Your task to perform on an android device: Search for pizza restaurants on Maps Image 0: 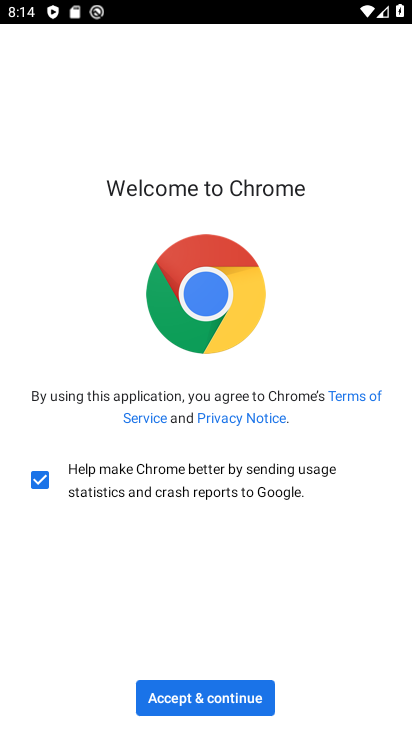
Step 0: click (191, 690)
Your task to perform on an android device: Search for pizza restaurants on Maps Image 1: 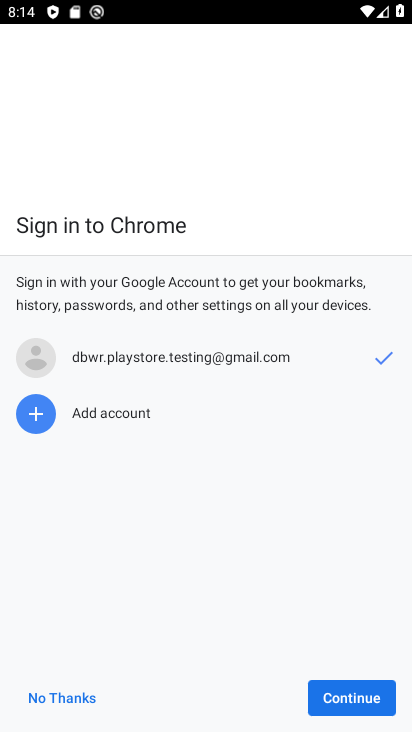
Step 1: click (349, 684)
Your task to perform on an android device: Search for pizza restaurants on Maps Image 2: 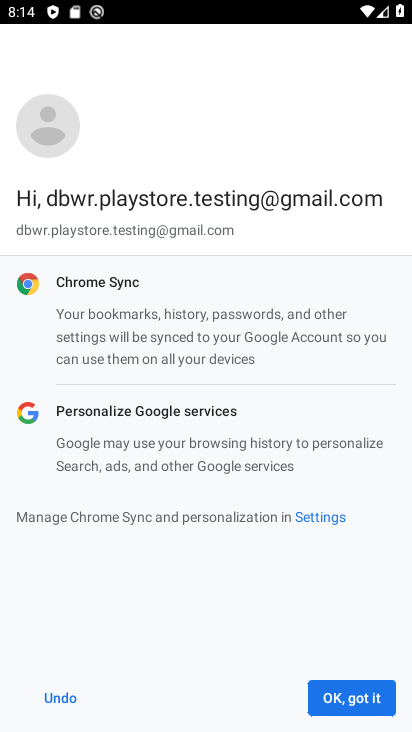
Step 2: click (347, 690)
Your task to perform on an android device: Search for pizza restaurants on Maps Image 3: 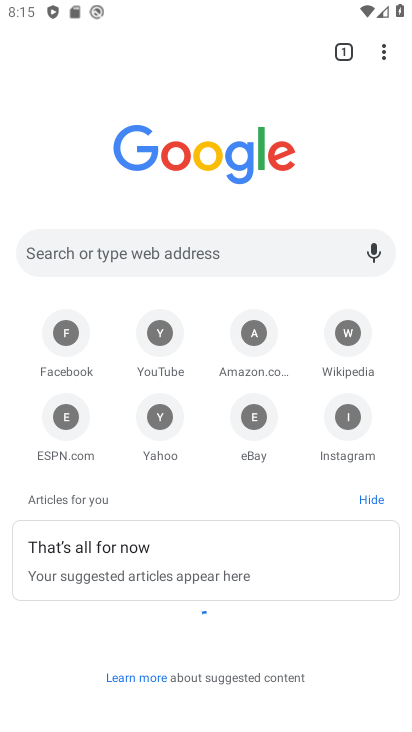
Step 3: press home button
Your task to perform on an android device: Search for pizza restaurants on Maps Image 4: 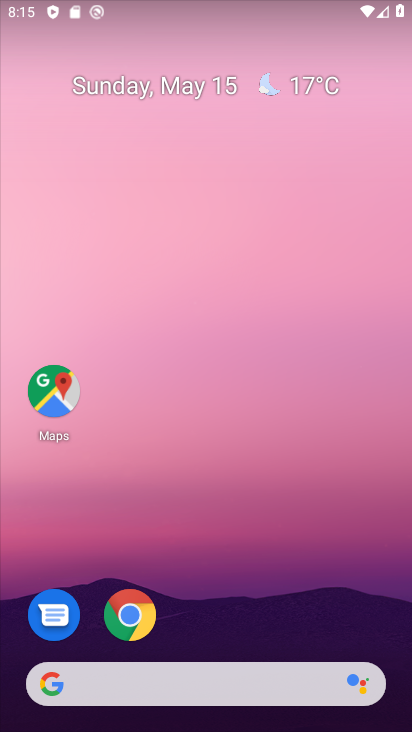
Step 4: click (53, 387)
Your task to perform on an android device: Search for pizza restaurants on Maps Image 5: 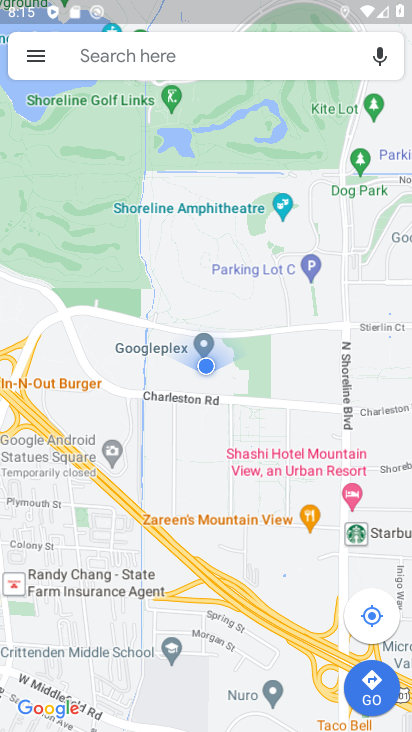
Step 5: click (246, 60)
Your task to perform on an android device: Search for pizza restaurants on Maps Image 6: 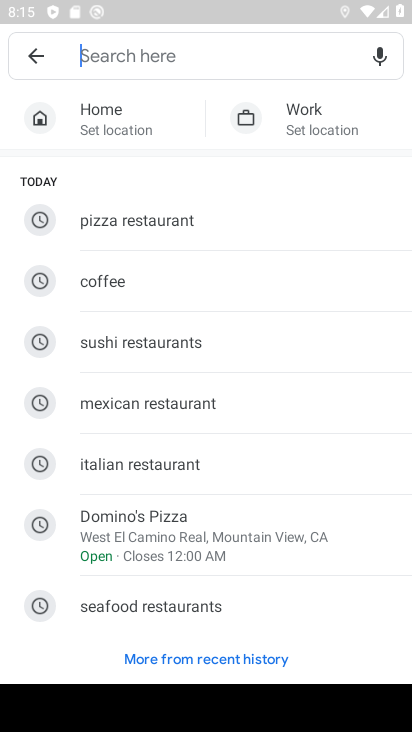
Step 6: click (177, 216)
Your task to perform on an android device: Search for pizza restaurants on Maps Image 7: 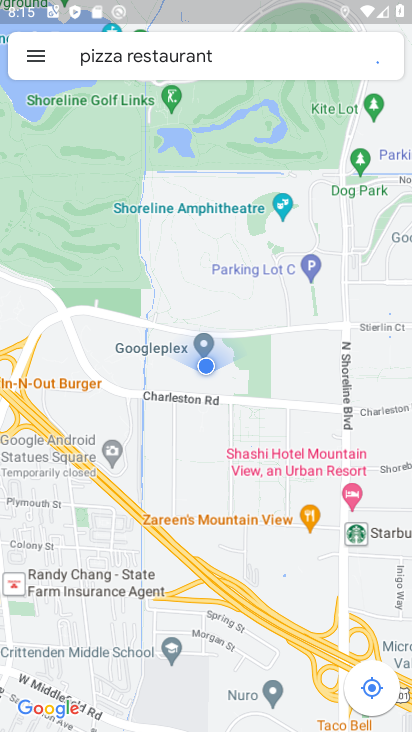
Step 7: task complete